Your task to perform on an android device: Open Google Image 0: 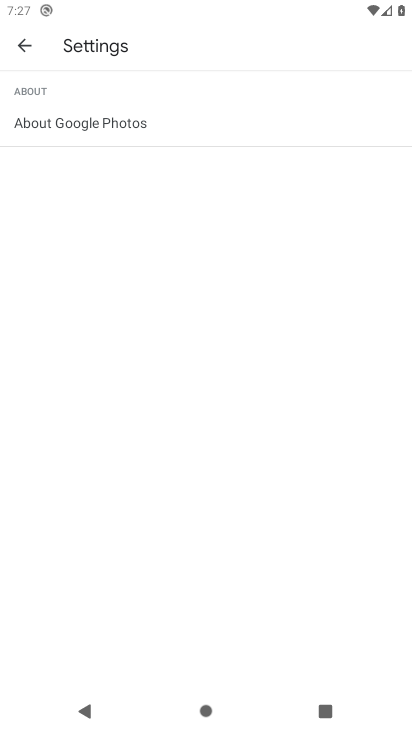
Step 0: press home button
Your task to perform on an android device: Open Google Image 1: 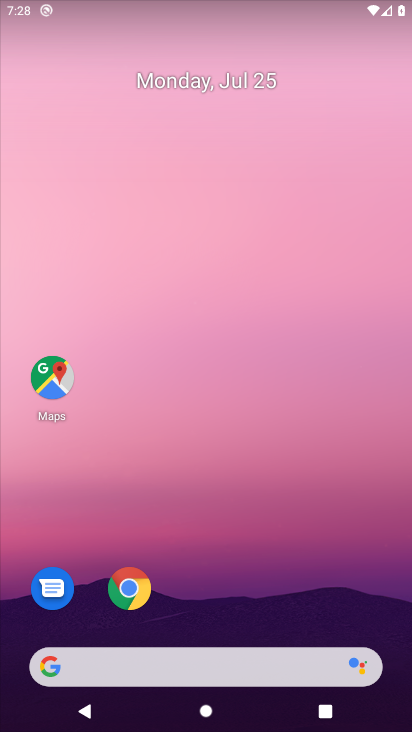
Step 1: click (171, 671)
Your task to perform on an android device: Open Google Image 2: 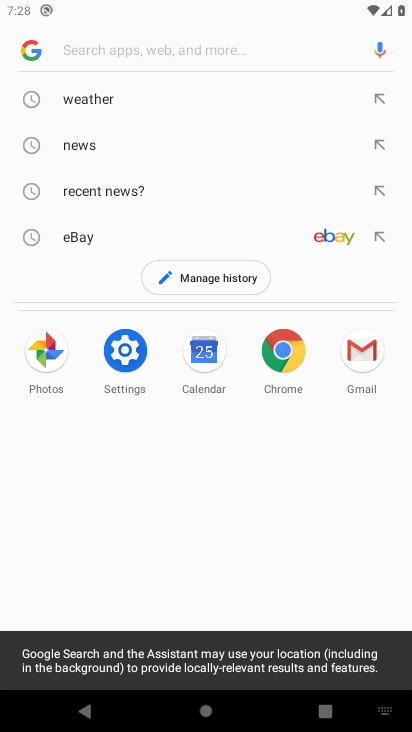
Step 2: task complete